Your task to perform on an android device: Open Yahoo.com Image 0: 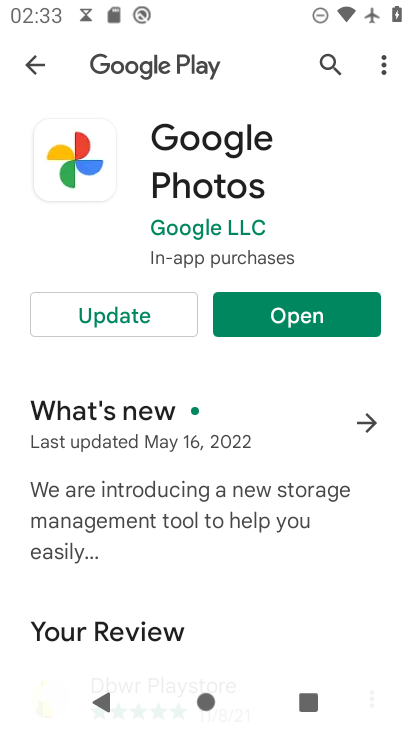
Step 0: press home button
Your task to perform on an android device: Open Yahoo.com Image 1: 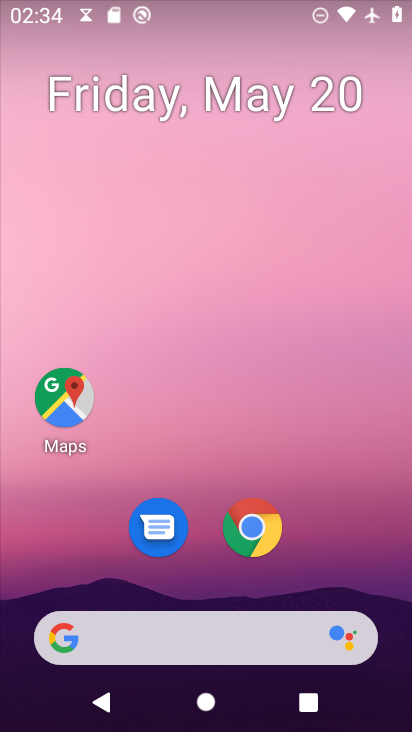
Step 1: click (248, 538)
Your task to perform on an android device: Open Yahoo.com Image 2: 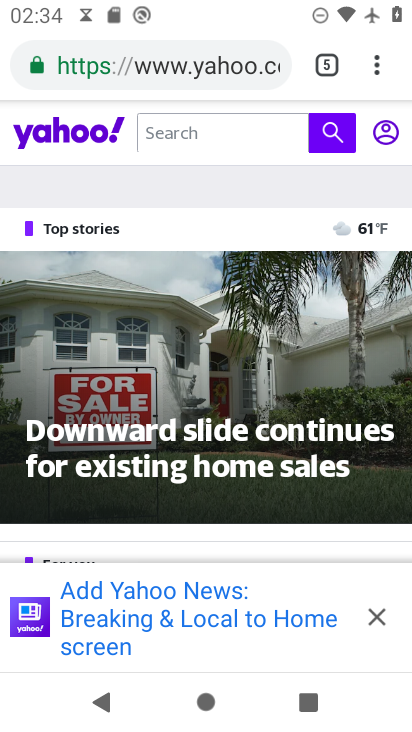
Step 2: task complete